Your task to perform on an android device: Set the phone to "Do not disturb". Image 0: 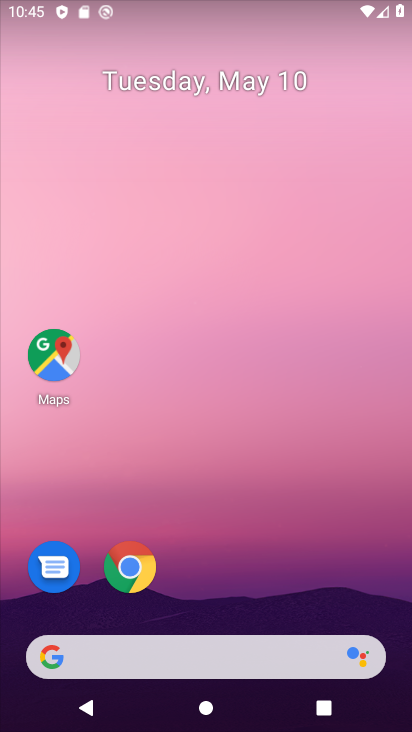
Step 0: drag from (257, 589) to (245, 224)
Your task to perform on an android device: Set the phone to "Do not disturb". Image 1: 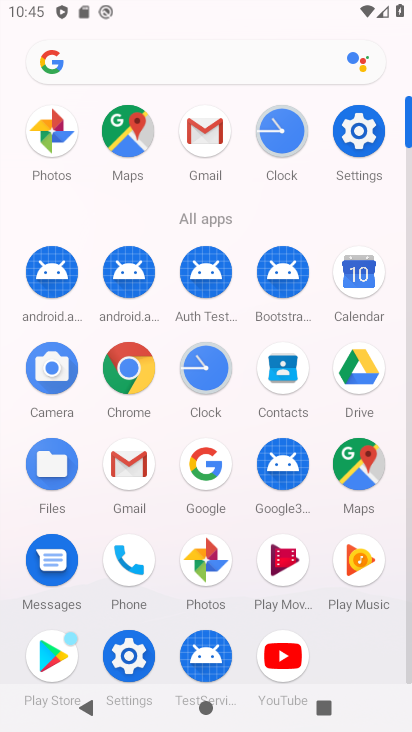
Step 1: click (355, 135)
Your task to perform on an android device: Set the phone to "Do not disturb". Image 2: 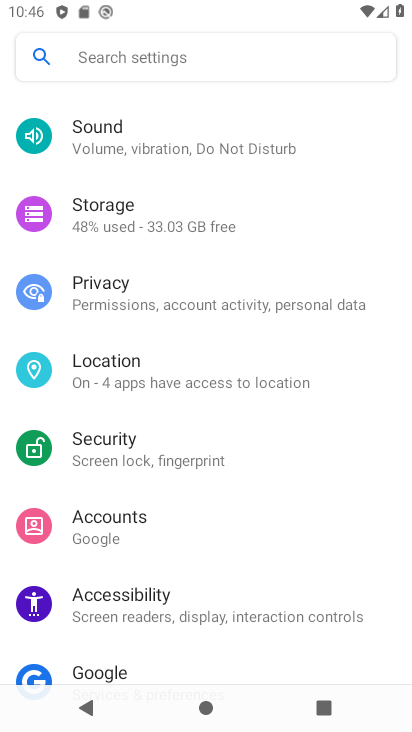
Step 2: drag from (198, 589) to (226, 278)
Your task to perform on an android device: Set the phone to "Do not disturb". Image 3: 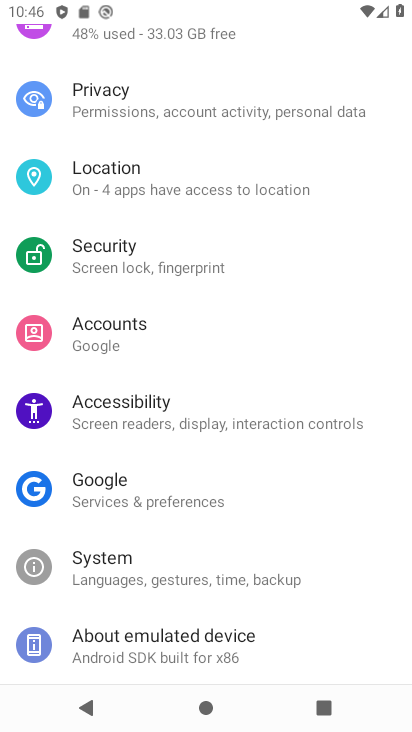
Step 3: drag from (294, 183) to (247, 568)
Your task to perform on an android device: Set the phone to "Do not disturb". Image 4: 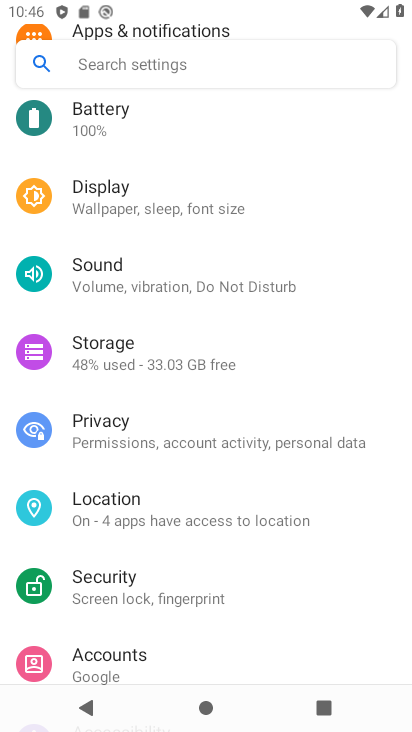
Step 4: drag from (324, 254) to (328, 566)
Your task to perform on an android device: Set the phone to "Do not disturb". Image 5: 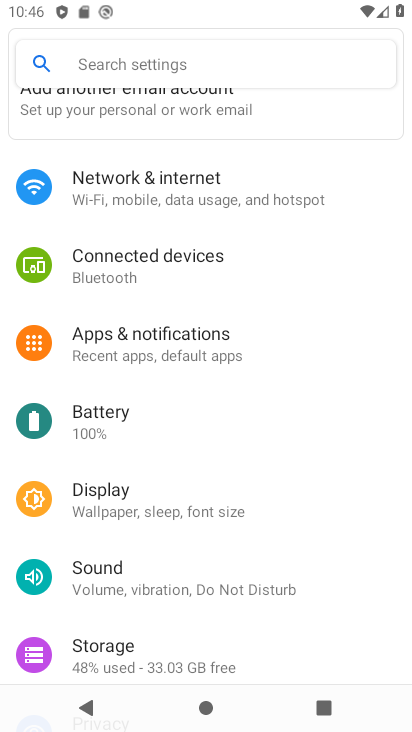
Step 5: drag from (326, 308) to (318, 220)
Your task to perform on an android device: Set the phone to "Do not disturb". Image 6: 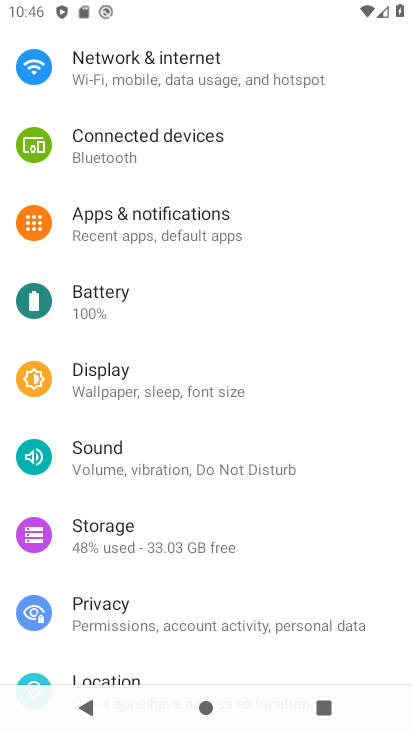
Step 6: click (239, 461)
Your task to perform on an android device: Set the phone to "Do not disturb". Image 7: 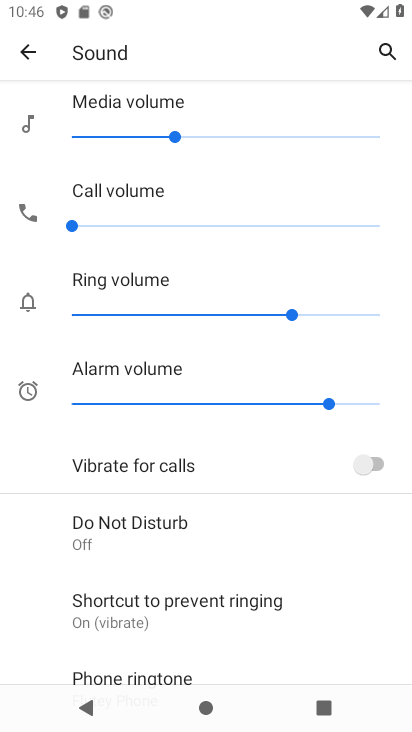
Step 7: drag from (229, 627) to (261, 253)
Your task to perform on an android device: Set the phone to "Do not disturb". Image 8: 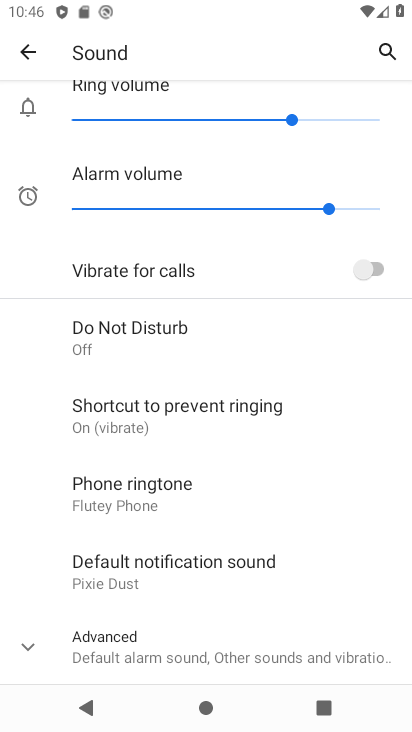
Step 8: drag from (227, 310) to (241, 585)
Your task to perform on an android device: Set the phone to "Do not disturb". Image 9: 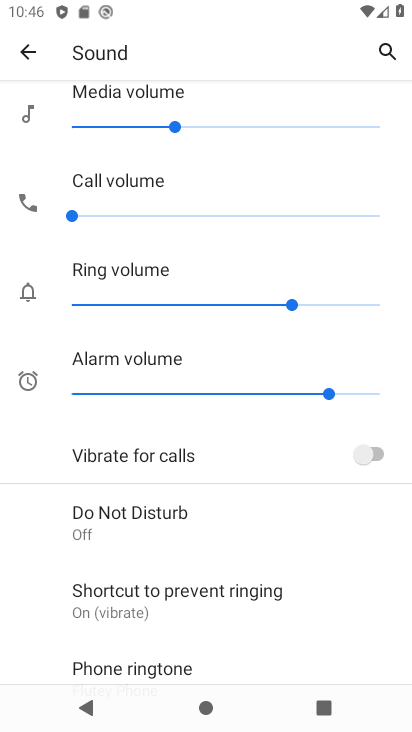
Step 9: drag from (270, 266) to (233, 617)
Your task to perform on an android device: Set the phone to "Do not disturb". Image 10: 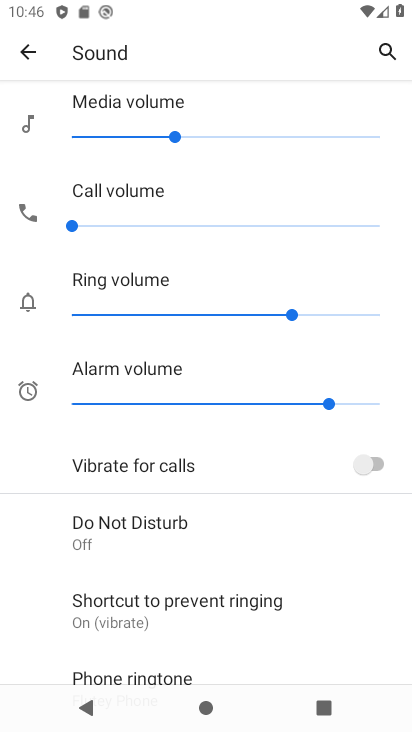
Step 10: drag from (227, 614) to (228, 564)
Your task to perform on an android device: Set the phone to "Do not disturb". Image 11: 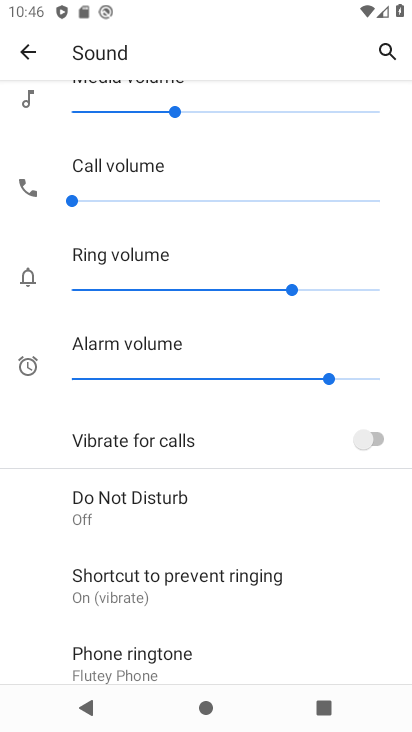
Step 11: click (190, 530)
Your task to perform on an android device: Set the phone to "Do not disturb". Image 12: 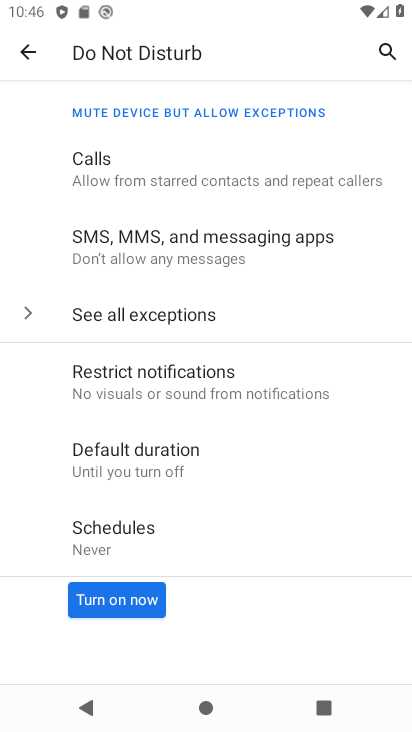
Step 12: click (133, 591)
Your task to perform on an android device: Set the phone to "Do not disturb". Image 13: 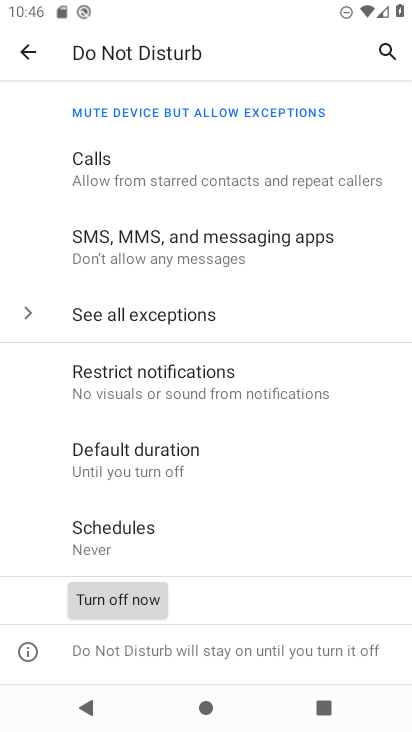
Step 13: task complete